Your task to perform on an android device: allow notifications from all sites in the chrome app Image 0: 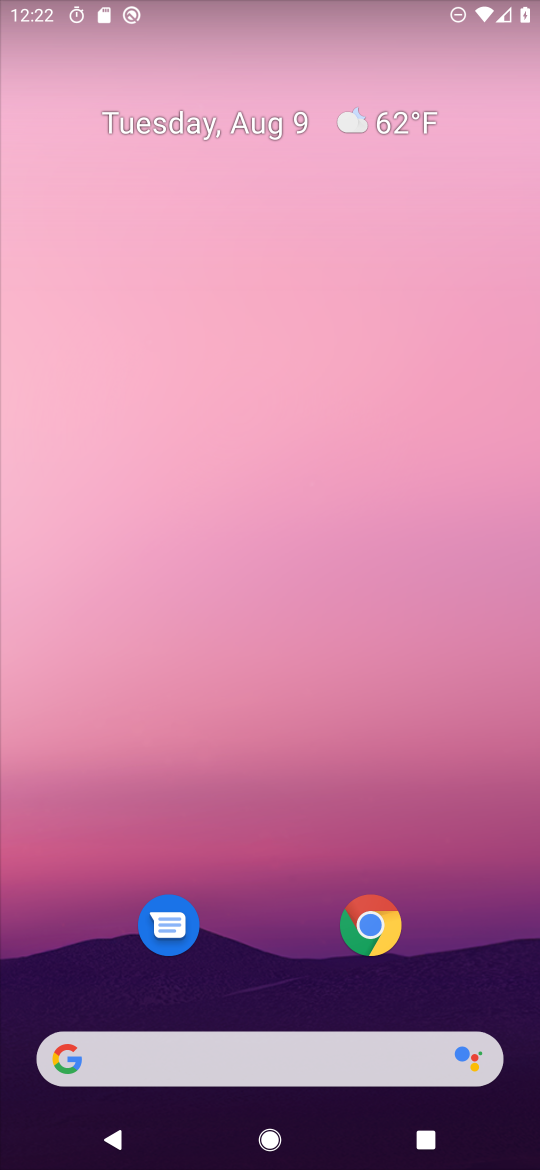
Step 0: drag from (258, 964) to (247, 308)
Your task to perform on an android device: allow notifications from all sites in the chrome app Image 1: 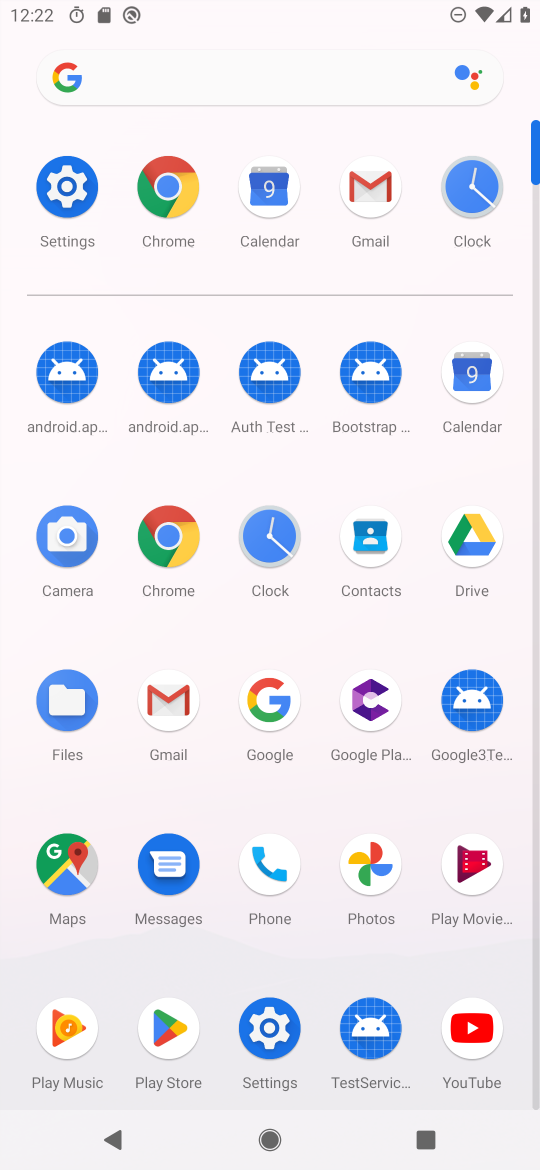
Step 1: click (153, 540)
Your task to perform on an android device: allow notifications from all sites in the chrome app Image 2: 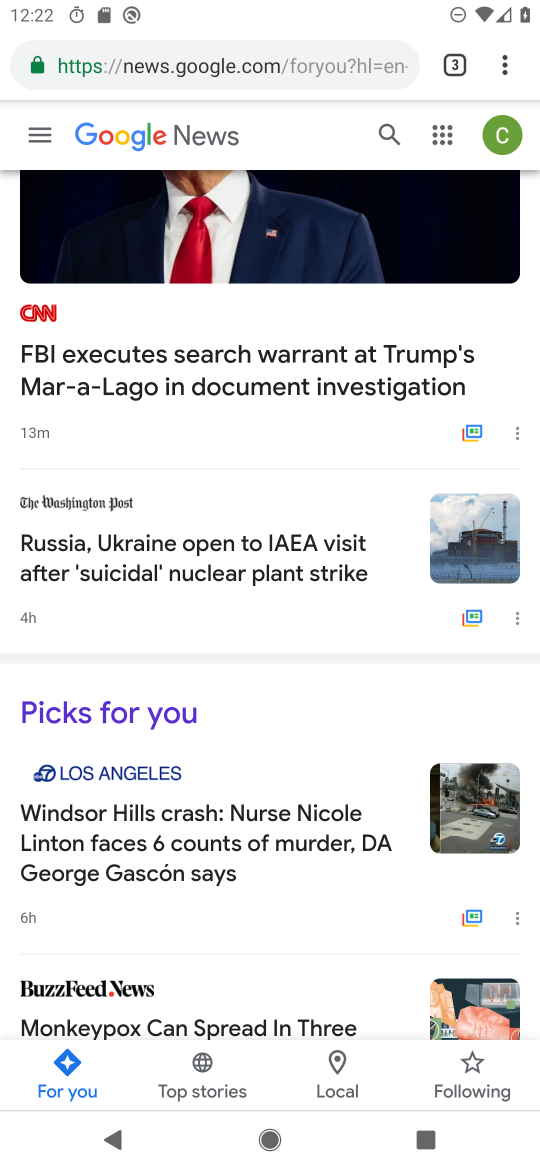
Step 2: drag from (499, 67) to (263, 865)
Your task to perform on an android device: allow notifications from all sites in the chrome app Image 3: 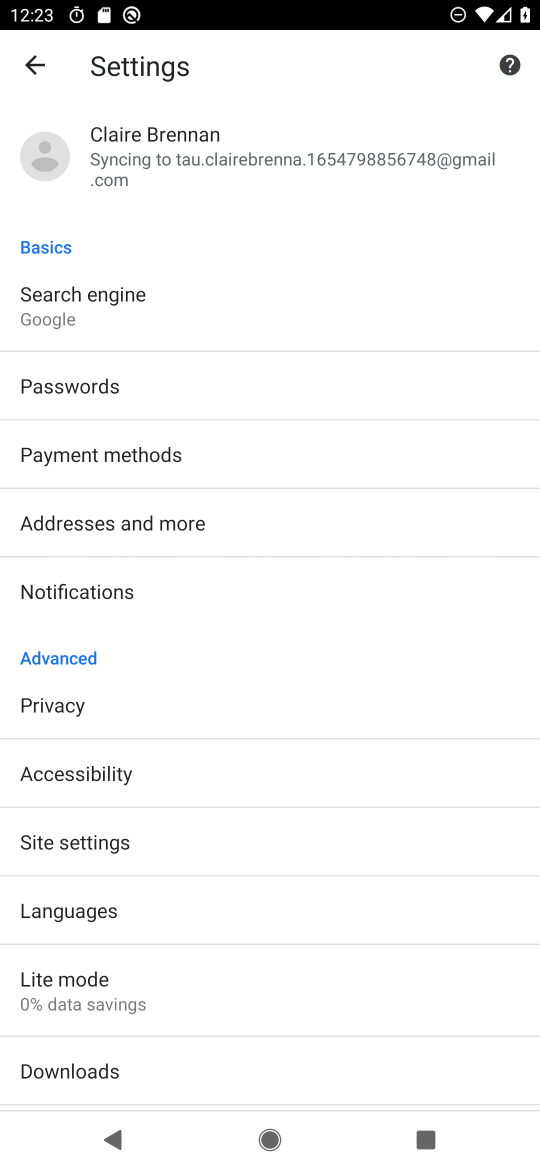
Step 3: click (93, 591)
Your task to perform on an android device: allow notifications from all sites in the chrome app Image 4: 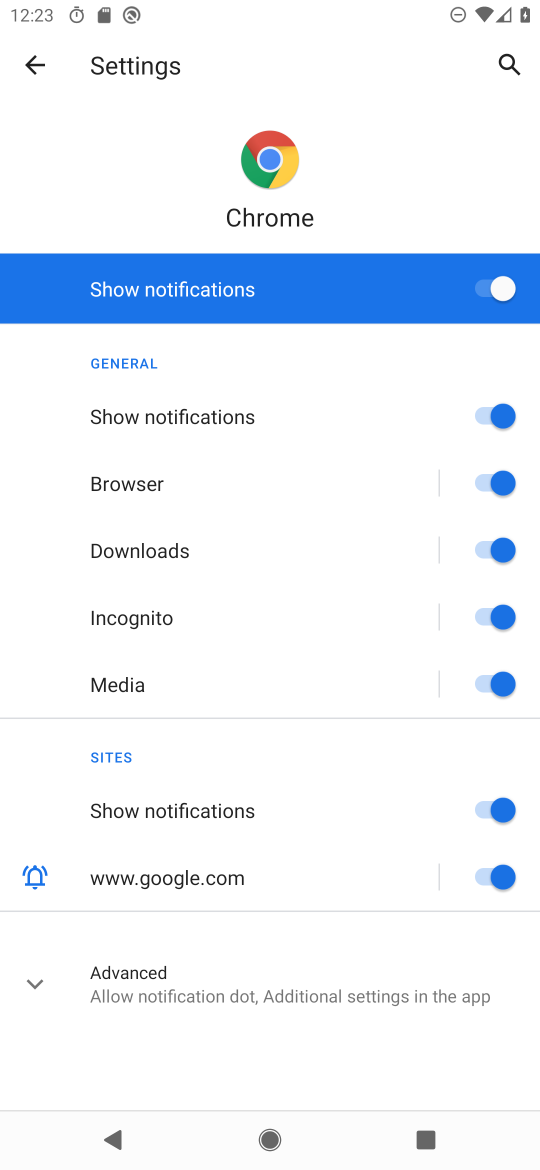
Step 4: task complete